Your task to perform on an android device: stop showing notifications on the lock screen Image 0: 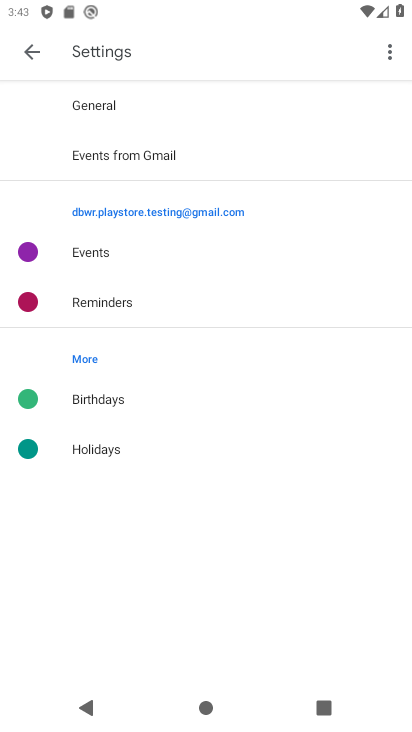
Step 0: press home button
Your task to perform on an android device: stop showing notifications on the lock screen Image 1: 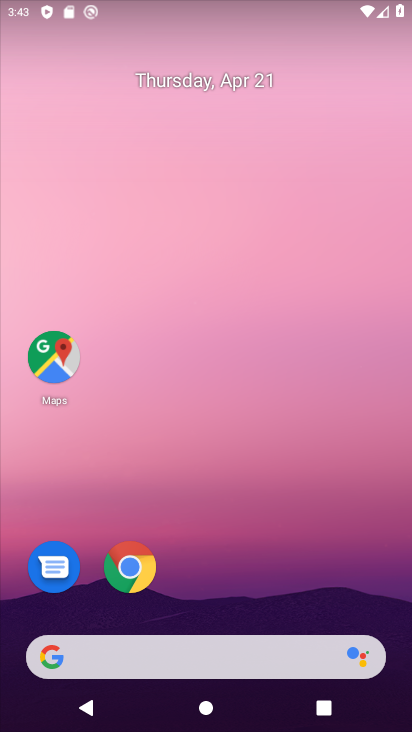
Step 1: drag from (266, 567) to (269, 11)
Your task to perform on an android device: stop showing notifications on the lock screen Image 2: 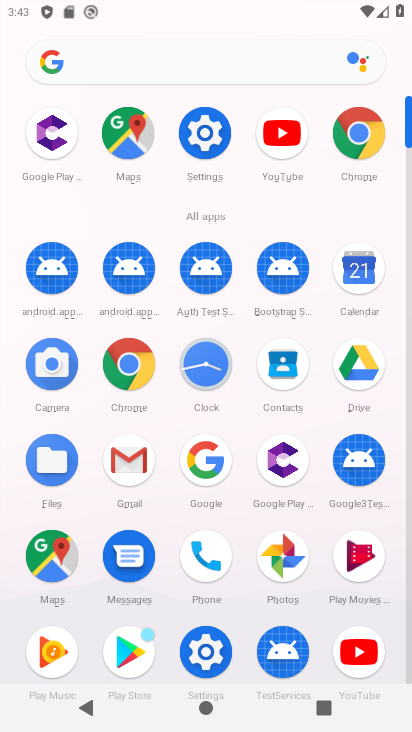
Step 2: click (205, 174)
Your task to perform on an android device: stop showing notifications on the lock screen Image 3: 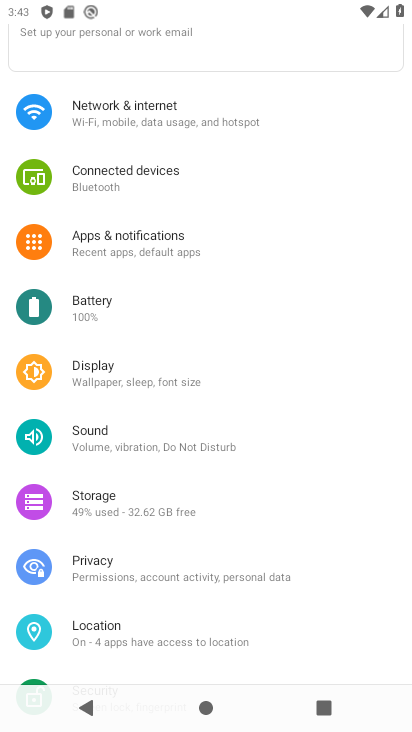
Step 3: click (119, 230)
Your task to perform on an android device: stop showing notifications on the lock screen Image 4: 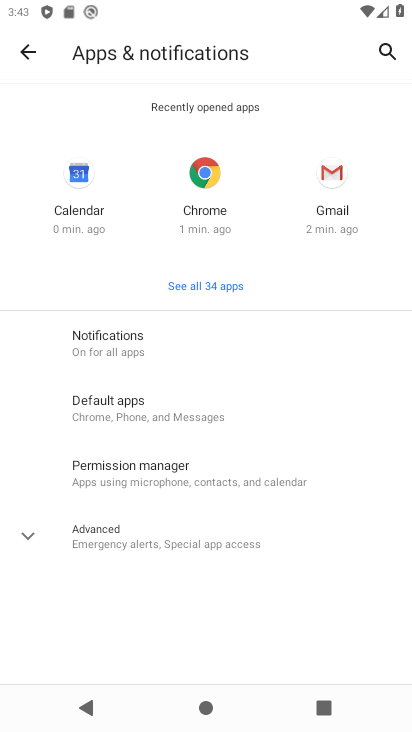
Step 4: click (119, 325)
Your task to perform on an android device: stop showing notifications on the lock screen Image 5: 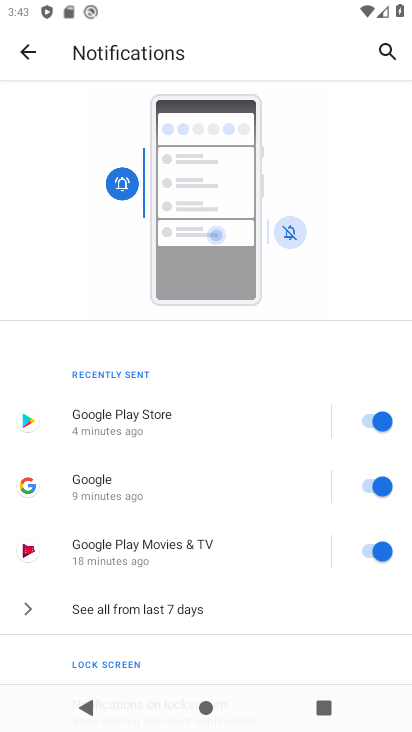
Step 5: drag from (191, 619) to (179, 287)
Your task to perform on an android device: stop showing notifications on the lock screen Image 6: 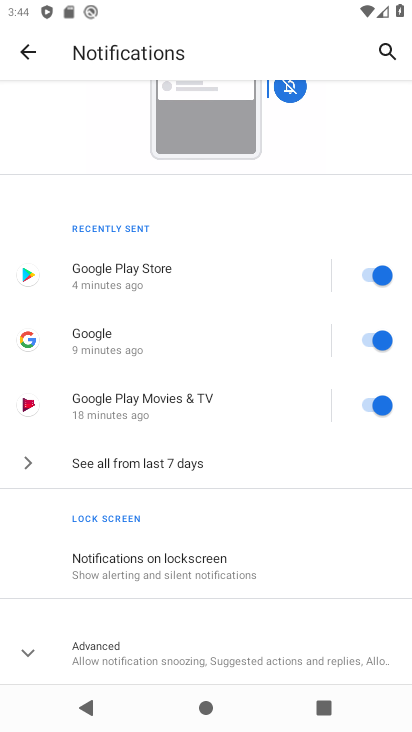
Step 6: click (184, 550)
Your task to perform on an android device: stop showing notifications on the lock screen Image 7: 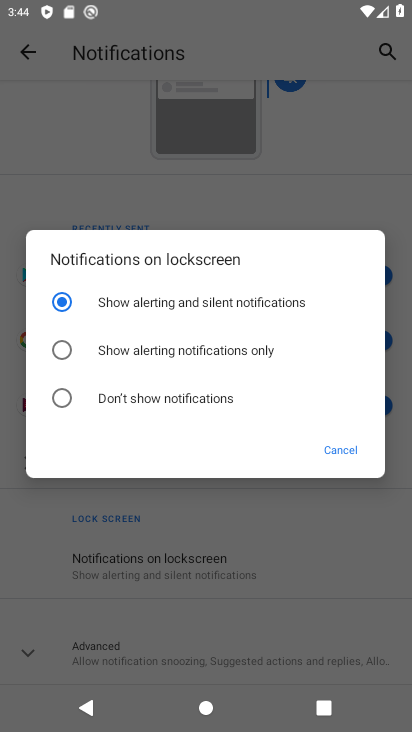
Step 7: click (63, 389)
Your task to perform on an android device: stop showing notifications on the lock screen Image 8: 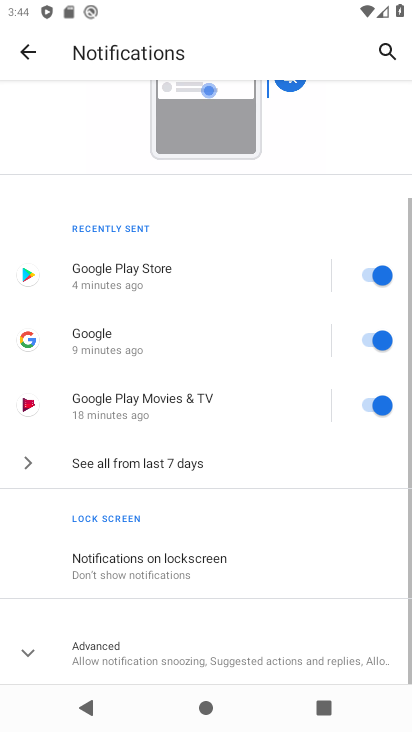
Step 8: task complete